Your task to perform on an android device: find photos in the google photos app Image 0: 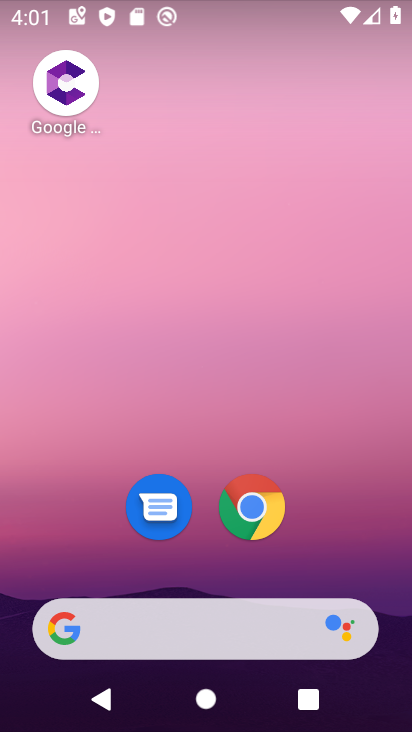
Step 0: drag from (363, 552) to (278, 60)
Your task to perform on an android device: find photos in the google photos app Image 1: 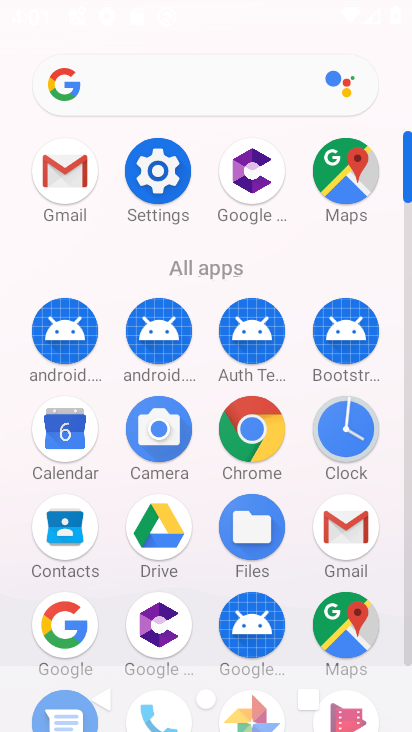
Step 1: click (409, 663)
Your task to perform on an android device: find photos in the google photos app Image 2: 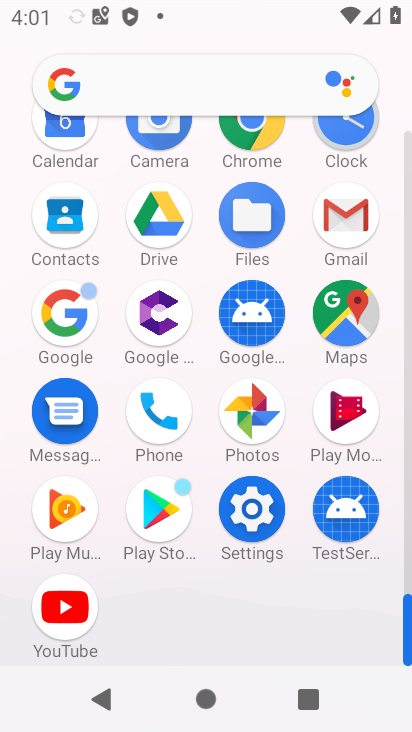
Step 2: click (238, 423)
Your task to perform on an android device: find photos in the google photos app Image 3: 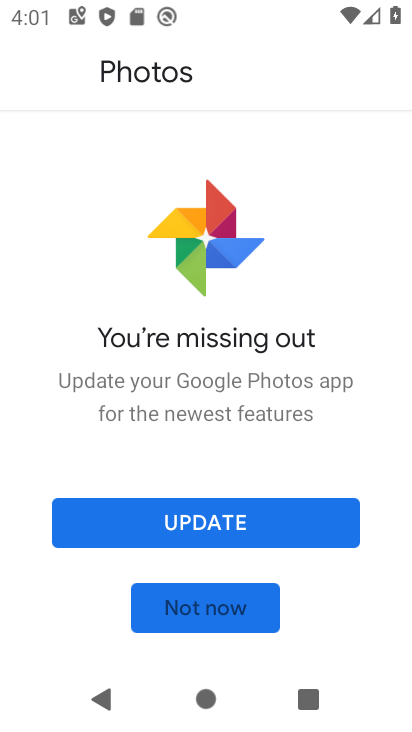
Step 3: click (267, 507)
Your task to perform on an android device: find photos in the google photos app Image 4: 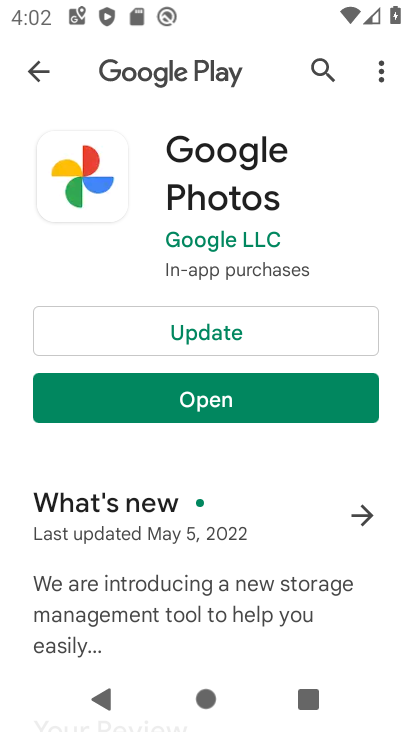
Step 4: click (202, 336)
Your task to perform on an android device: find photos in the google photos app Image 5: 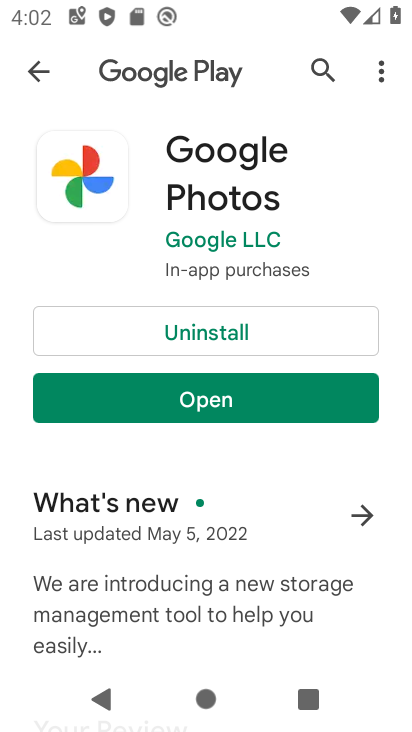
Step 5: click (337, 397)
Your task to perform on an android device: find photos in the google photos app Image 6: 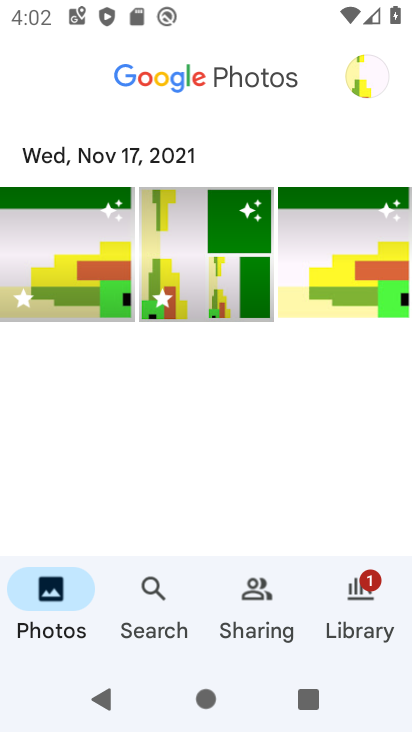
Step 6: task complete